Your task to perform on an android device: toggle location history Image 0: 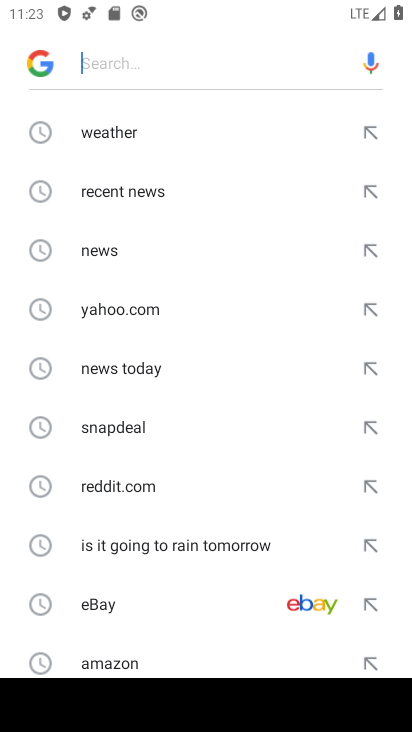
Step 0: press home button
Your task to perform on an android device: toggle location history Image 1: 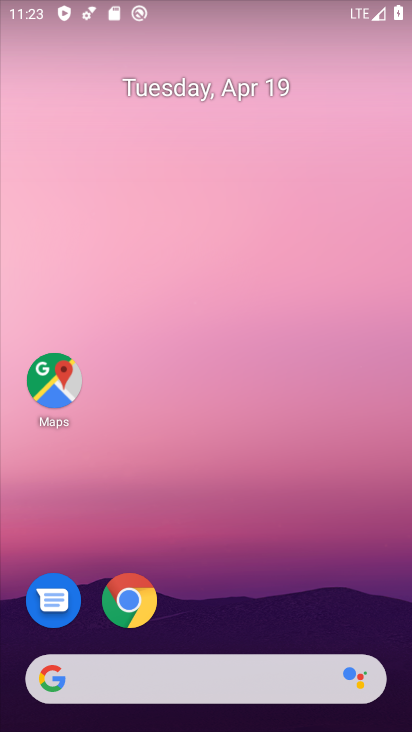
Step 1: click (52, 384)
Your task to perform on an android device: toggle location history Image 2: 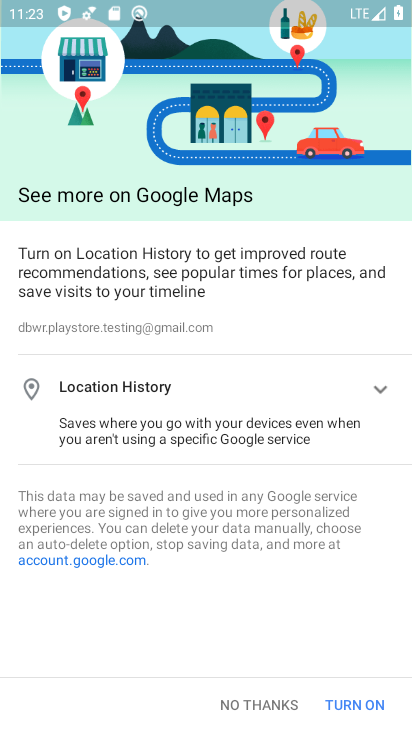
Step 2: click (249, 704)
Your task to perform on an android device: toggle location history Image 3: 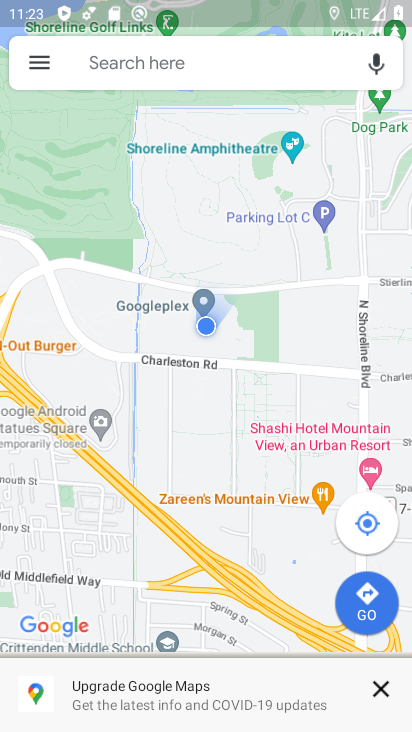
Step 3: click (33, 59)
Your task to perform on an android device: toggle location history Image 4: 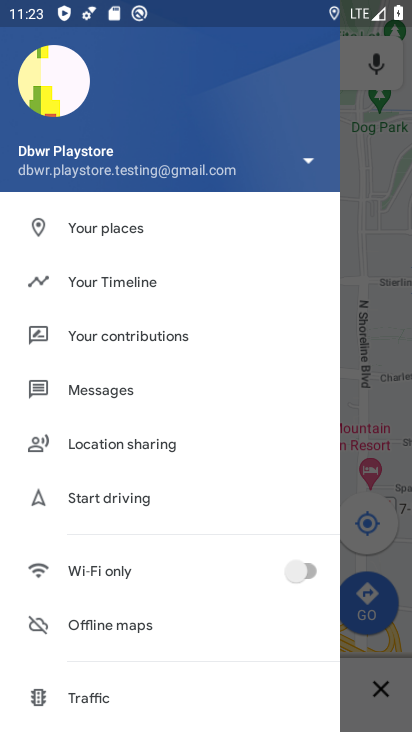
Step 4: click (75, 279)
Your task to perform on an android device: toggle location history Image 5: 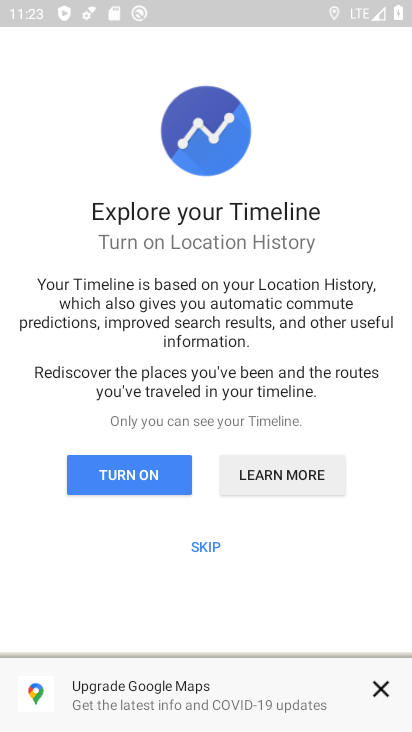
Step 5: click (199, 542)
Your task to perform on an android device: toggle location history Image 6: 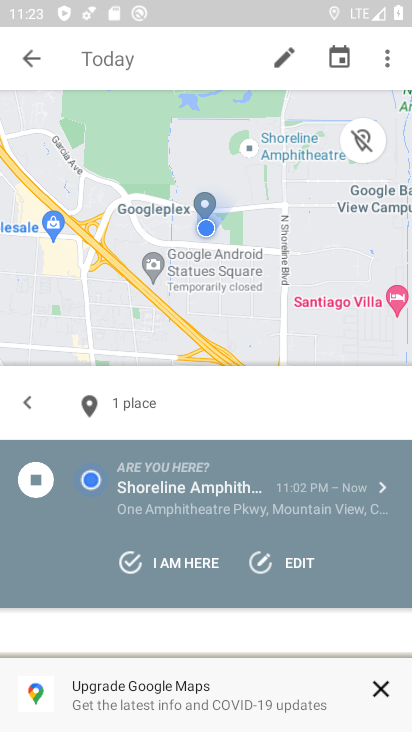
Step 6: click (384, 56)
Your task to perform on an android device: toggle location history Image 7: 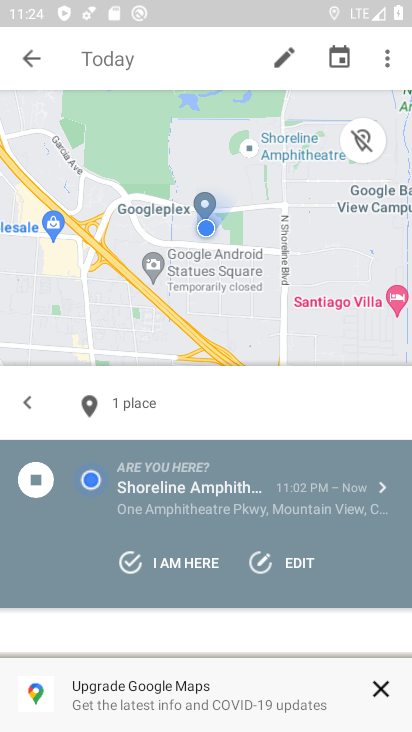
Step 7: click (388, 57)
Your task to perform on an android device: toggle location history Image 8: 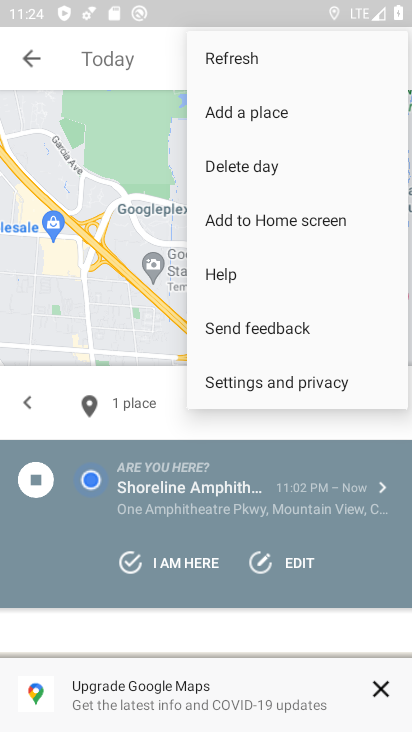
Step 8: click (278, 388)
Your task to perform on an android device: toggle location history Image 9: 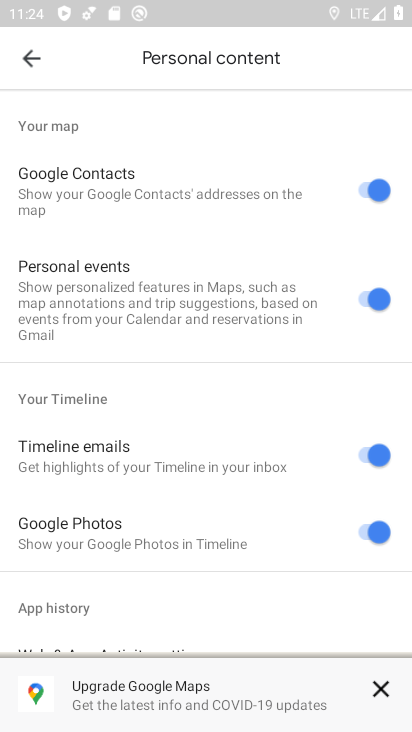
Step 9: drag from (153, 487) to (142, 157)
Your task to perform on an android device: toggle location history Image 10: 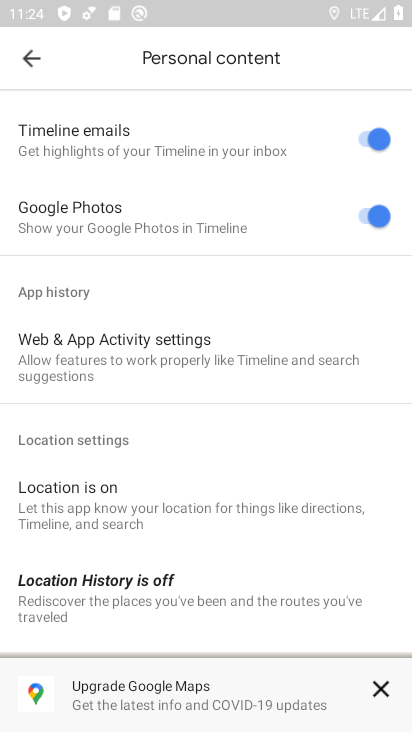
Step 10: drag from (157, 551) to (123, 179)
Your task to perform on an android device: toggle location history Image 11: 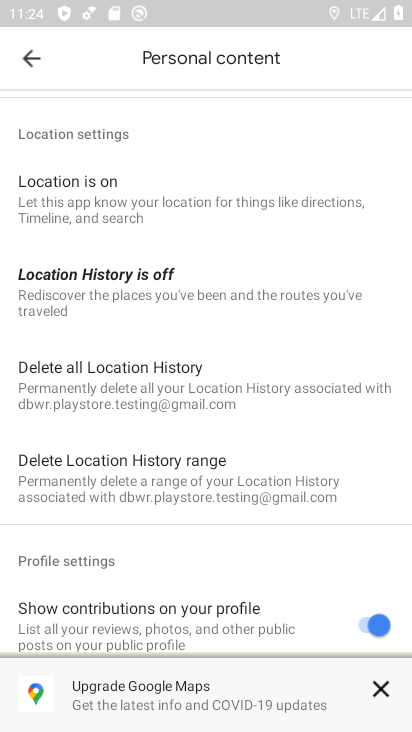
Step 11: click (95, 289)
Your task to perform on an android device: toggle location history Image 12: 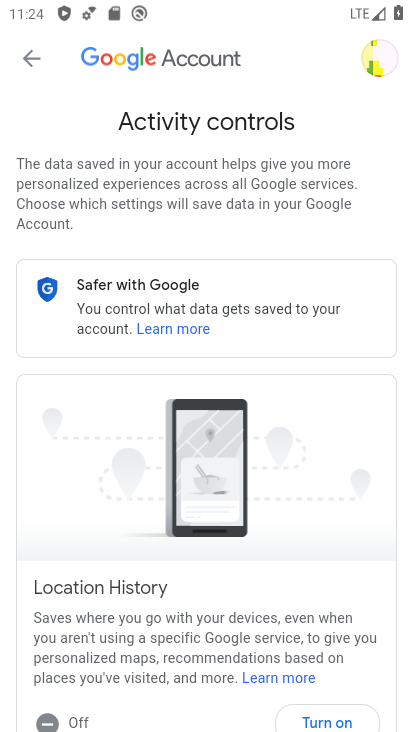
Step 12: drag from (258, 497) to (242, 182)
Your task to perform on an android device: toggle location history Image 13: 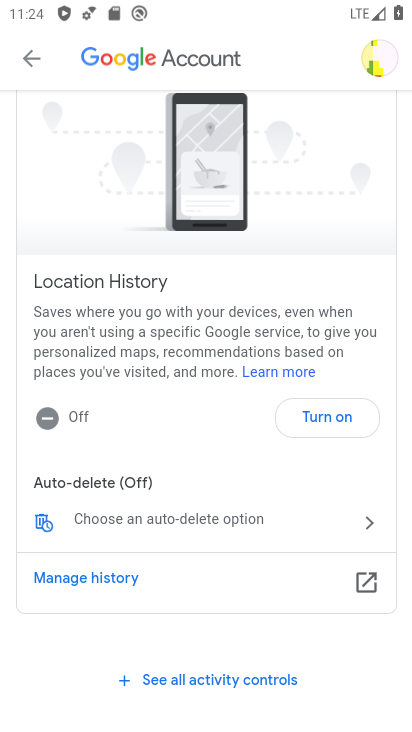
Step 13: drag from (142, 604) to (123, 332)
Your task to perform on an android device: toggle location history Image 14: 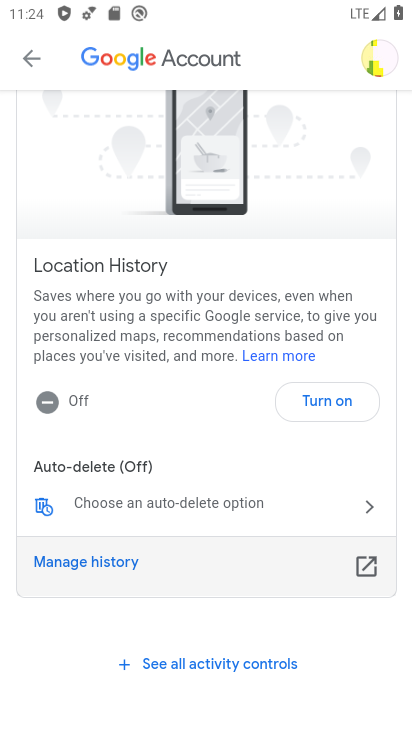
Step 14: click (339, 401)
Your task to perform on an android device: toggle location history Image 15: 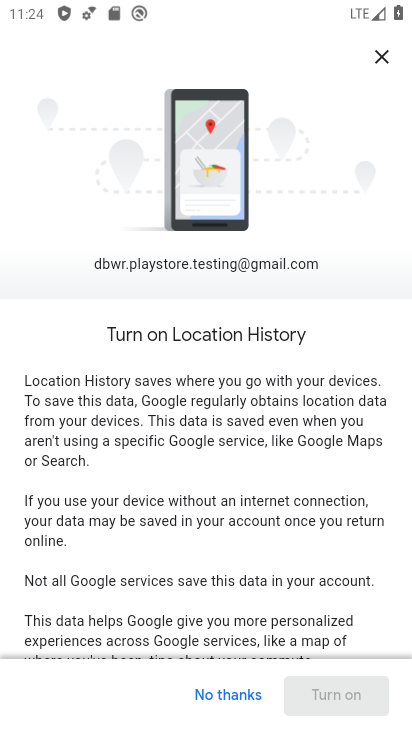
Step 15: drag from (284, 610) to (253, 173)
Your task to perform on an android device: toggle location history Image 16: 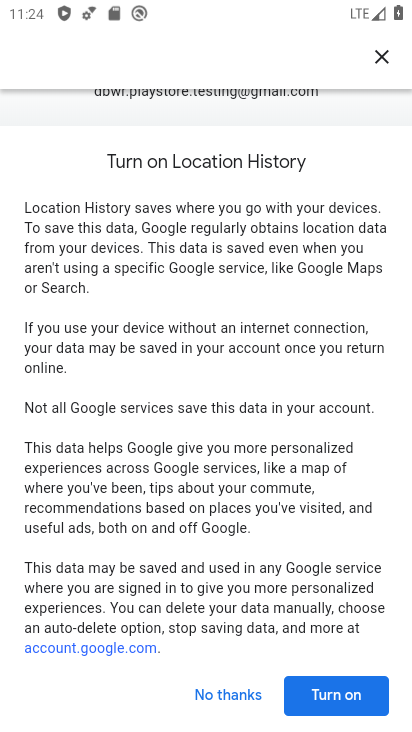
Step 16: click (337, 703)
Your task to perform on an android device: toggle location history Image 17: 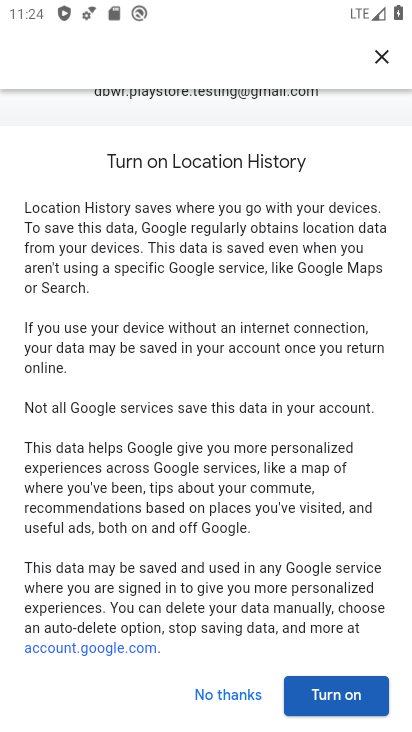
Step 17: click (339, 692)
Your task to perform on an android device: toggle location history Image 18: 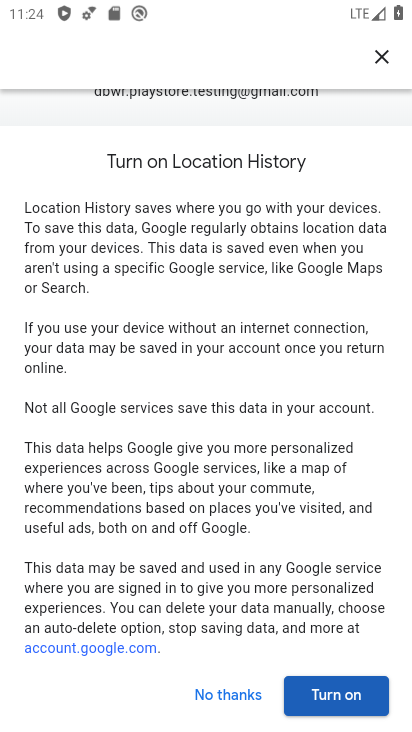
Step 18: click (335, 697)
Your task to perform on an android device: toggle location history Image 19: 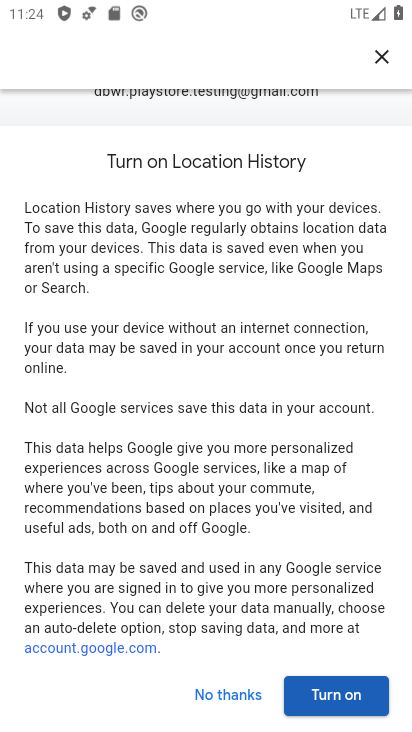
Step 19: click (327, 690)
Your task to perform on an android device: toggle location history Image 20: 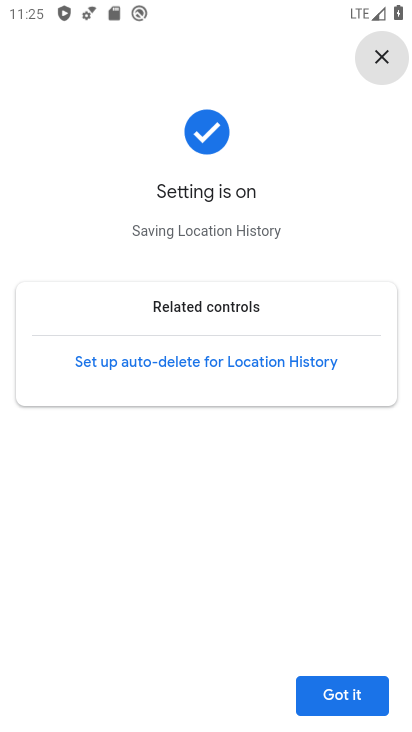
Step 20: click (337, 690)
Your task to perform on an android device: toggle location history Image 21: 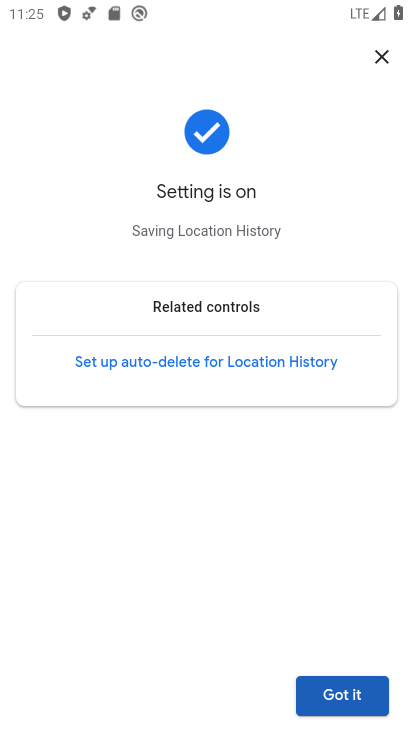
Step 21: click (352, 697)
Your task to perform on an android device: toggle location history Image 22: 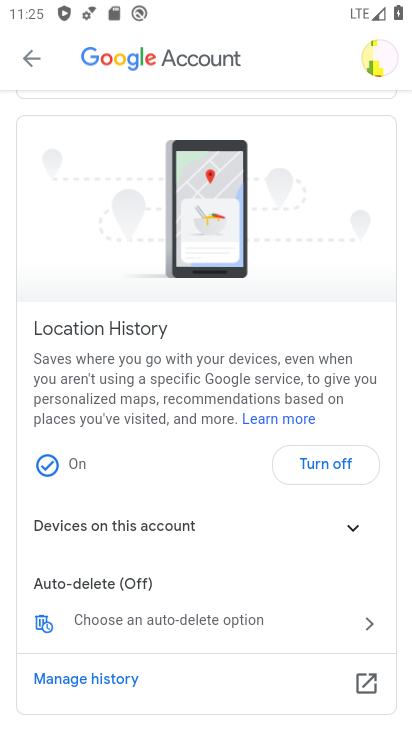
Step 22: task complete